Your task to perform on an android device: turn on improve location accuracy Image 0: 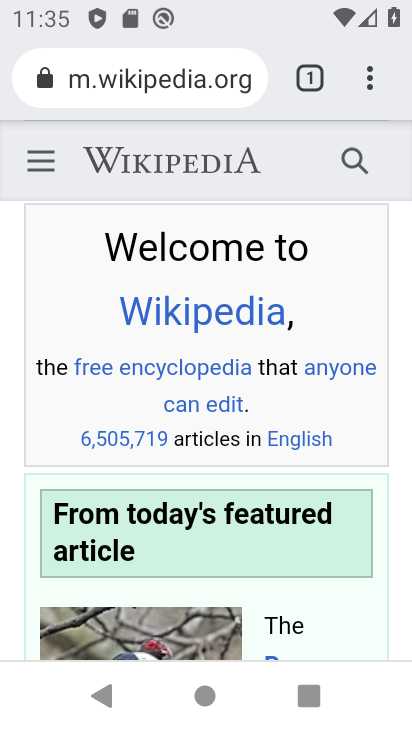
Step 0: press home button
Your task to perform on an android device: turn on improve location accuracy Image 1: 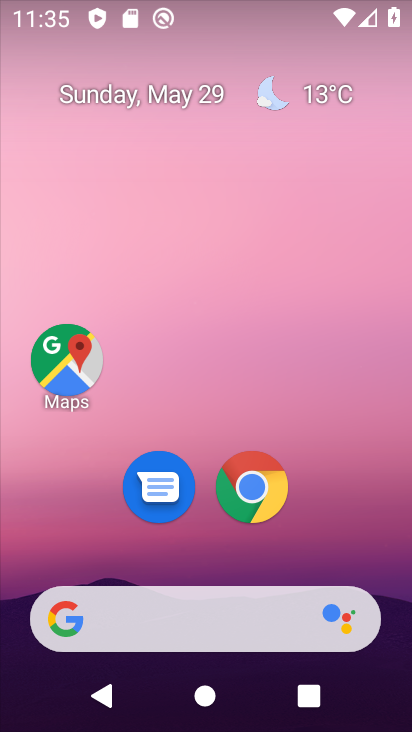
Step 1: drag from (379, 532) to (366, 148)
Your task to perform on an android device: turn on improve location accuracy Image 2: 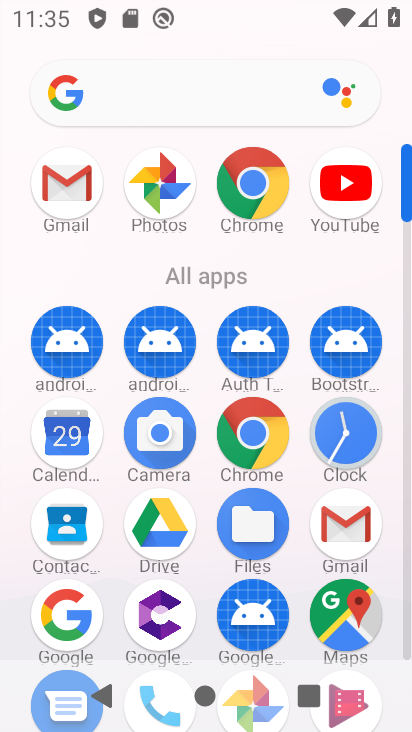
Step 2: drag from (331, 301) to (336, 17)
Your task to perform on an android device: turn on improve location accuracy Image 3: 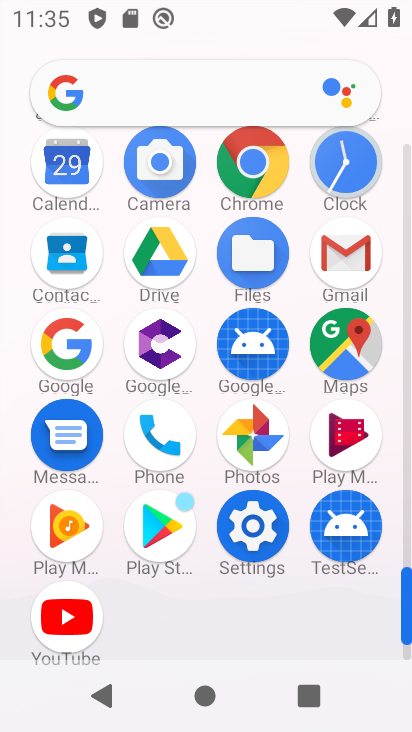
Step 3: click (269, 510)
Your task to perform on an android device: turn on improve location accuracy Image 4: 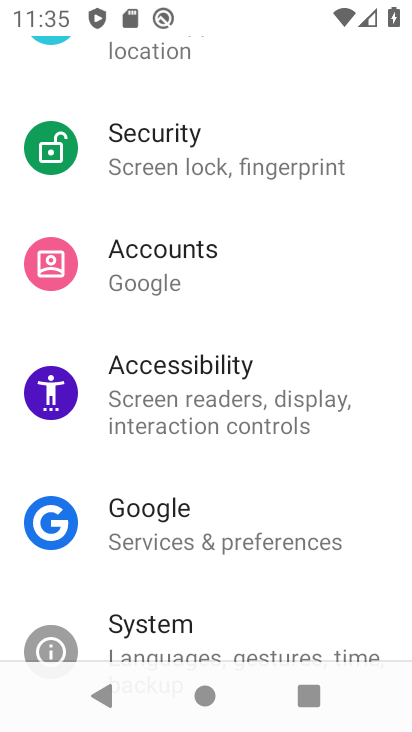
Step 4: drag from (251, 104) to (247, 369)
Your task to perform on an android device: turn on improve location accuracy Image 5: 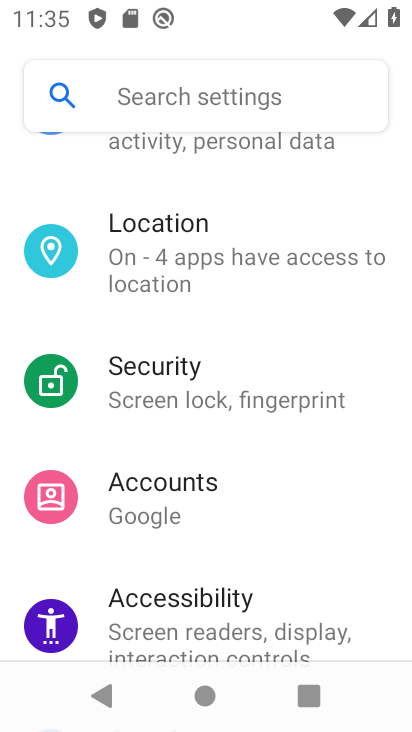
Step 5: click (202, 275)
Your task to perform on an android device: turn on improve location accuracy Image 6: 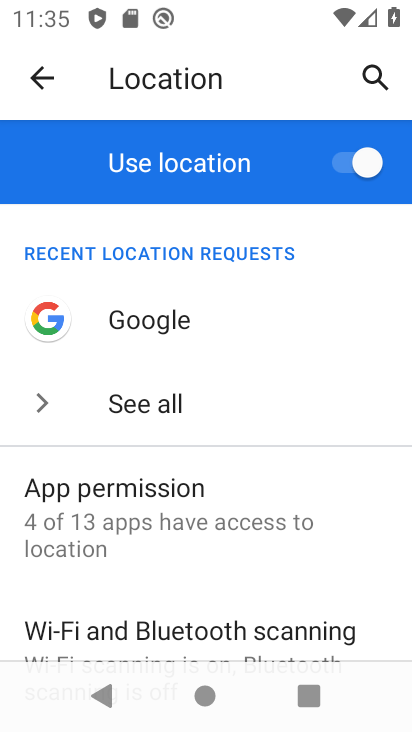
Step 6: drag from (244, 575) to (226, 266)
Your task to perform on an android device: turn on improve location accuracy Image 7: 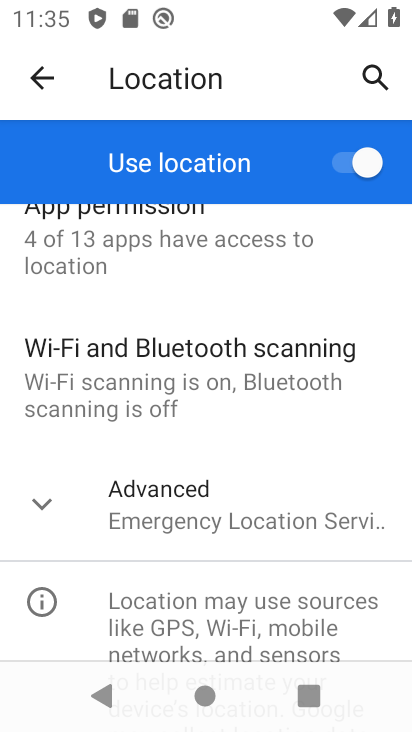
Step 7: click (185, 503)
Your task to perform on an android device: turn on improve location accuracy Image 8: 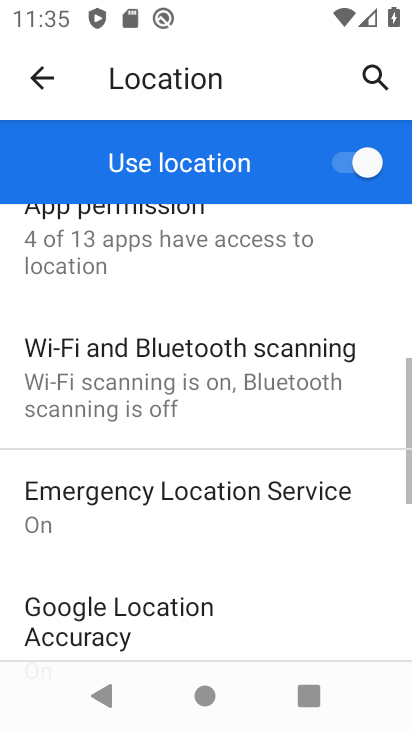
Step 8: drag from (181, 593) to (168, 391)
Your task to perform on an android device: turn on improve location accuracy Image 9: 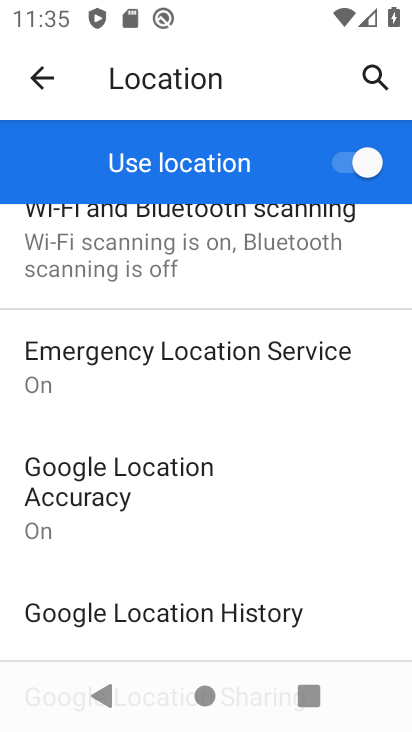
Step 9: click (169, 484)
Your task to perform on an android device: turn on improve location accuracy Image 10: 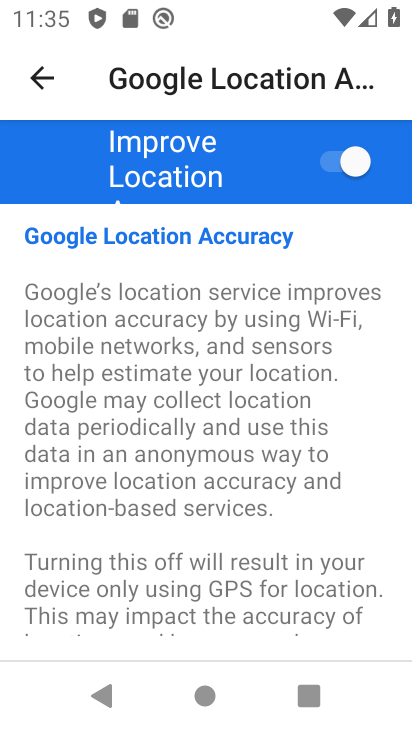
Step 10: task complete